Your task to perform on an android device: change your default location settings in chrome Image 0: 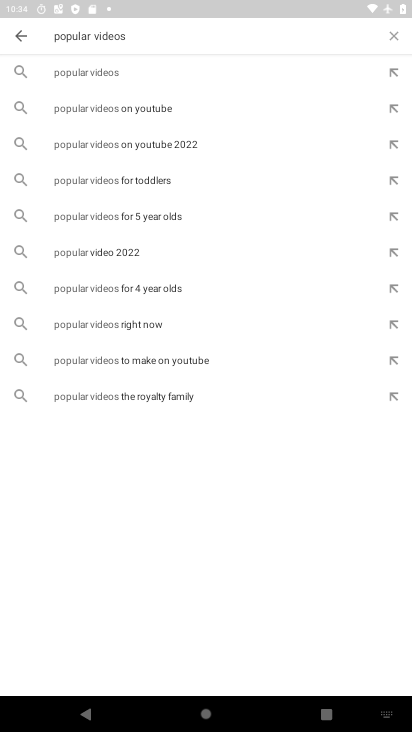
Step 0: press home button
Your task to perform on an android device: change your default location settings in chrome Image 1: 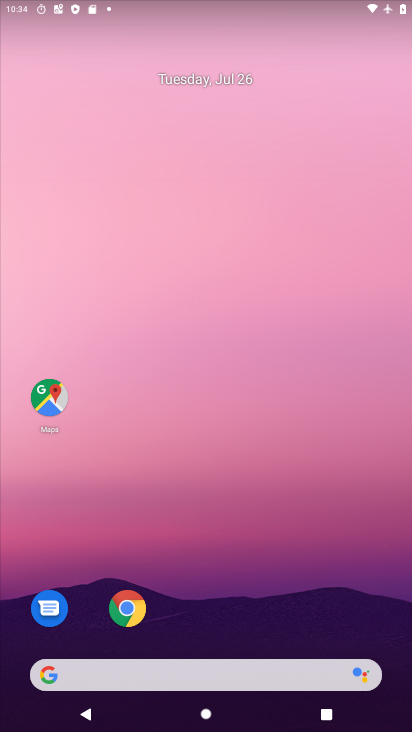
Step 1: click (126, 598)
Your task to perform on an android device: change your default location settings in chrome Image 2: 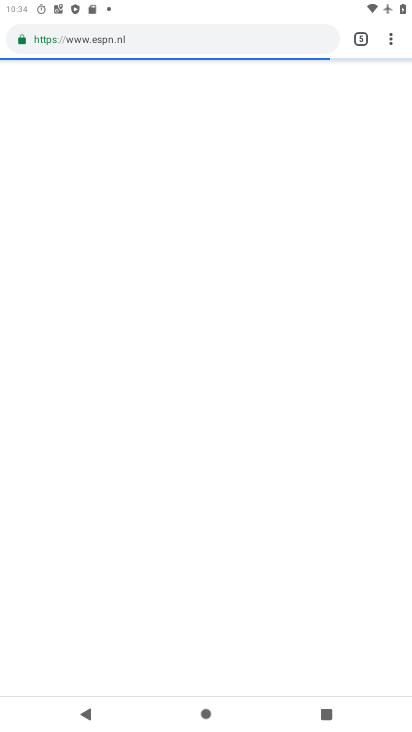
Step 2: click (386, 41)
Your task to perform on an android device: change your default location settings in chrome Image 3: 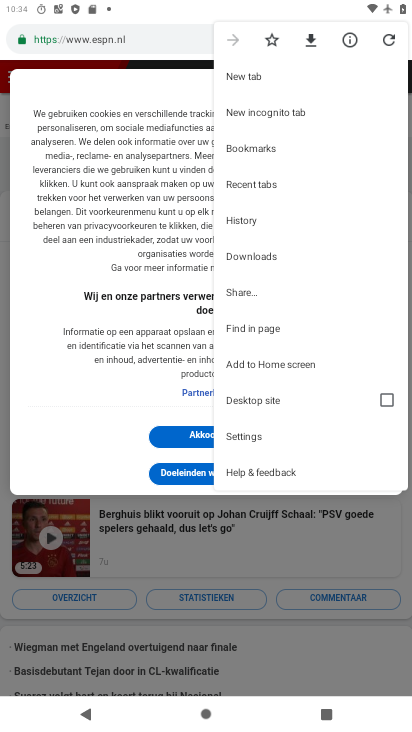
Step 3: click (272, 441)
Your task to perform on an android device: change your default location settings in chrome Image 4: 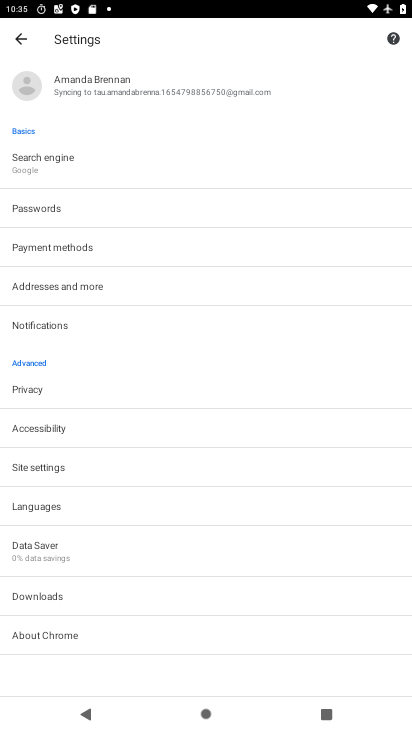
Step 4: click (43, 460)
Your task to perform on an android device: change your default location settings in chrome Image 5: 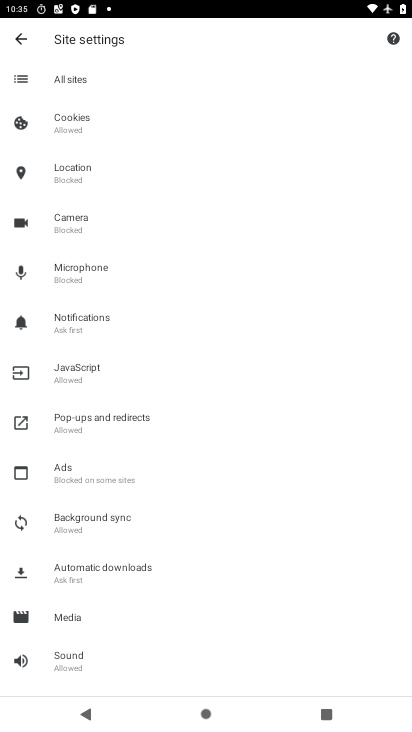
Step 5: click (80, 172)
Your task to perform on an android device: change your default location settings in chrome Image 6: 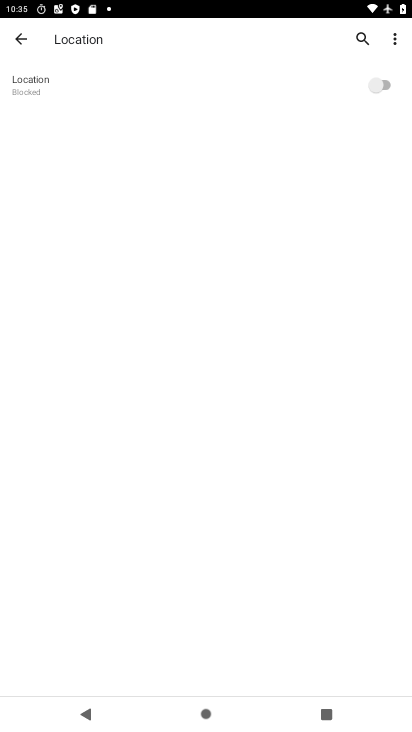
Step 6: click (385, 83)
Your task to perform on an android device: change your default location settings in chrome Image 7: 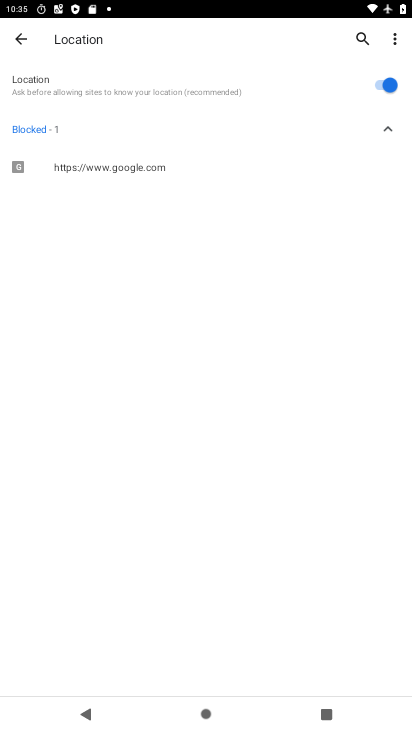
Step 7: task complete